Your task to perform on an android device: open a bookmark in the chrome app Image 0: 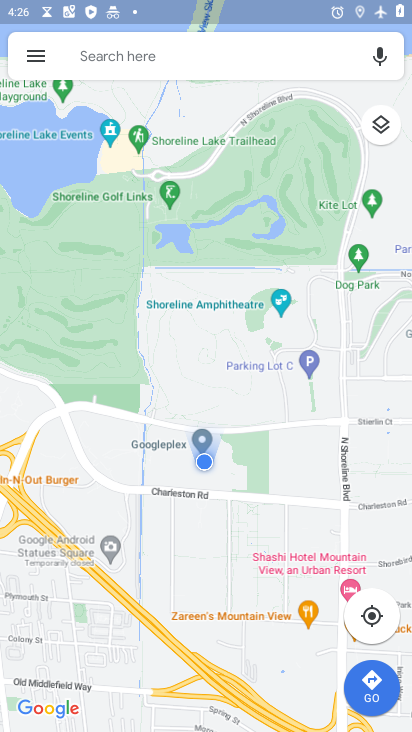
Step 0: press back button
Your task to perform on an android device: open a bookmark in the chrome app Image 1: 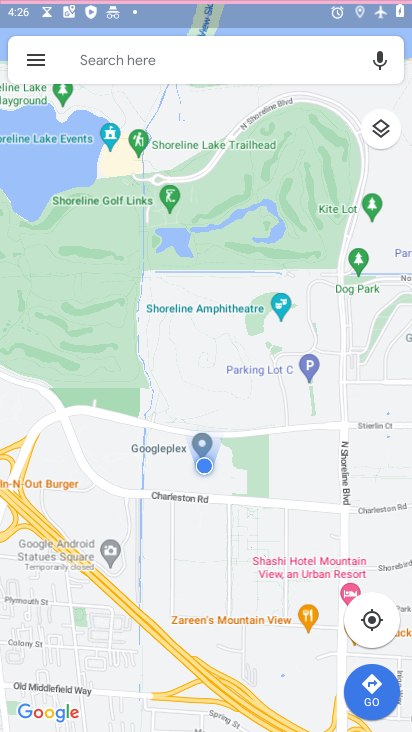
Step 1: press back button
Your task to perform on an android device: open a bookmark in the chrome app Image 2: 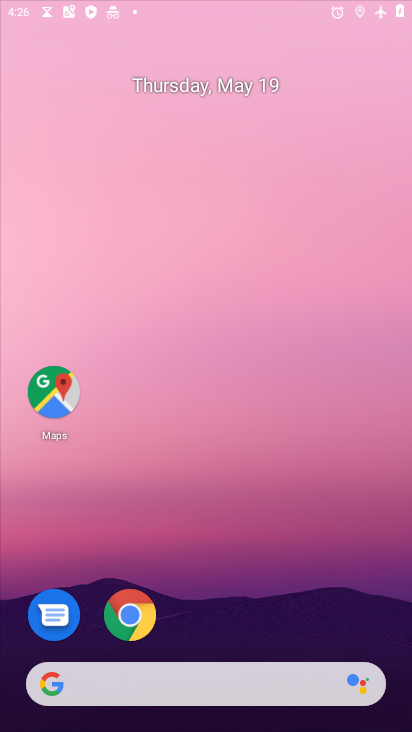
Step 2: press back button
Your task to perform on an android device: open a bookmark in the chrome app Image 3: 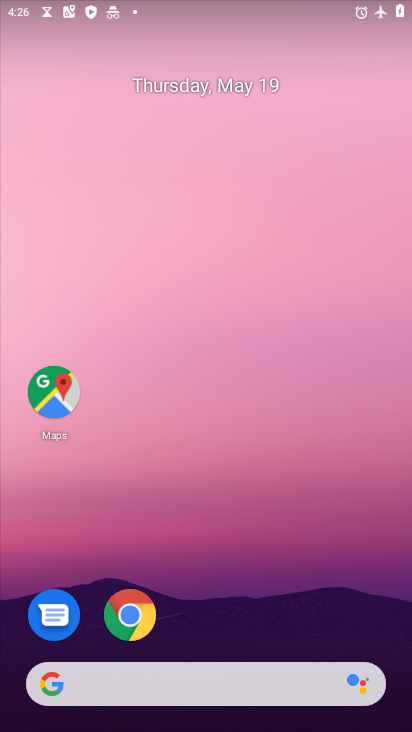
Step 3: drag from (252, 622) to (91, 70)
Your task to perform on an android device: open a bookmark in the chrome app Image 4: 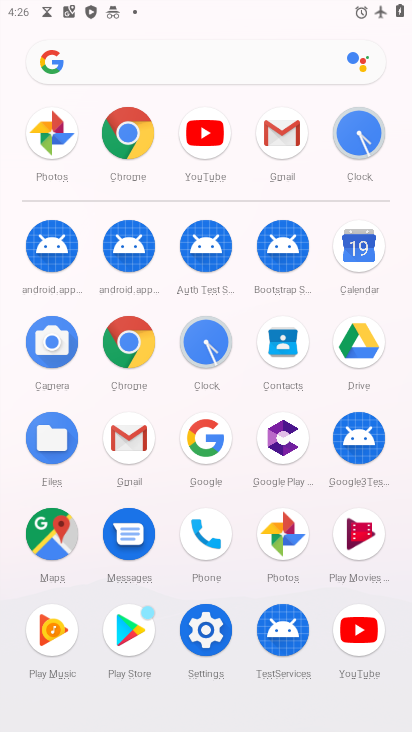
Step 4: click (133, 357)
Your task to perform on an android device: open a bookmark in the chrome app Image 5: 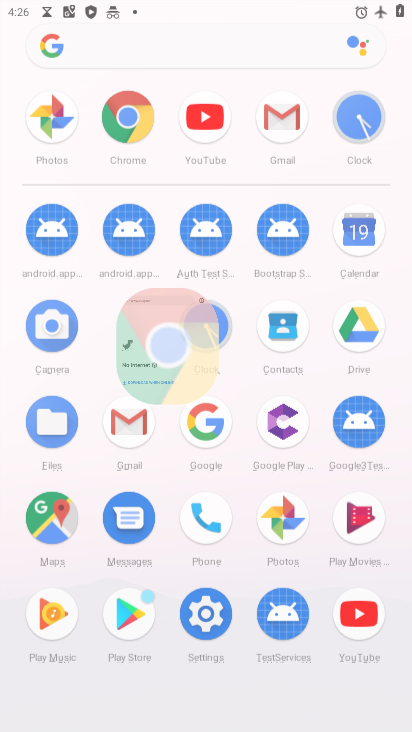
Step 5: click (133, 357)
Your task to perform on an android device: open a bookmark in the chrome app Image 6: 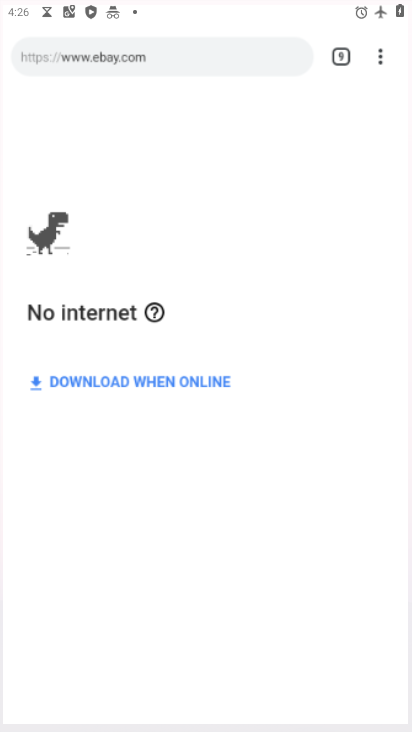
Step 6: click (132, 355)
Your task to perform on an android device: open a bookmark in the chrome app Image 7: 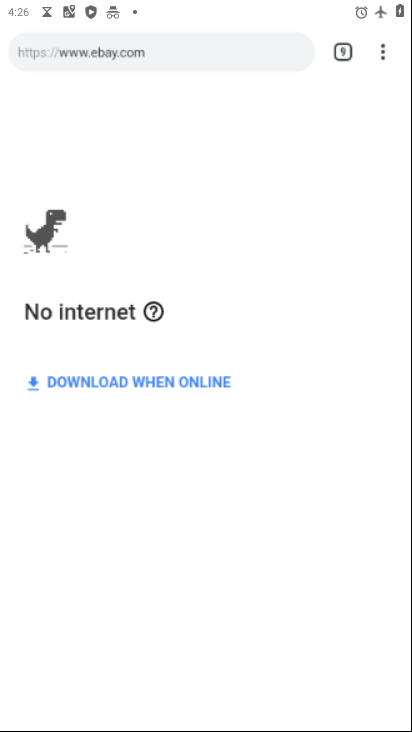
Step 7: click (132, 355)
Your task to perform on an android device: open a bookmark in the chrome app Image 8: 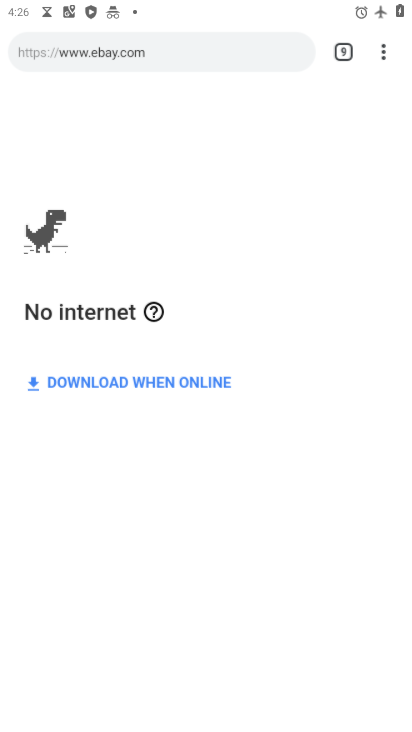
Step 8: click (134, 353)
Your task to perform on an android device: open a bookmark in the chrome app Image 9: 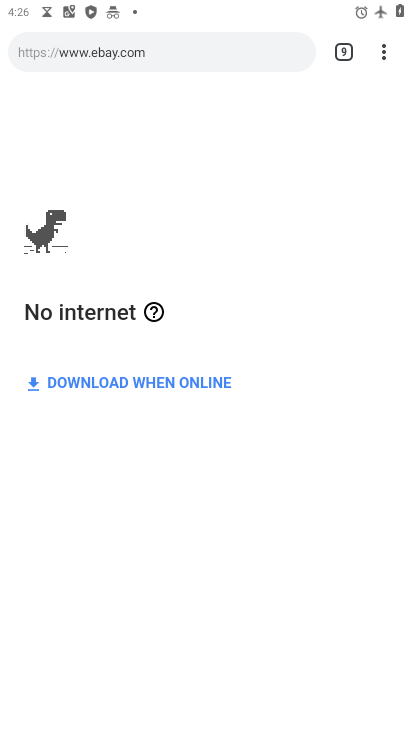
Step 9: task complete